Your task to perform on an android device: empty trash in google photos Image 0: 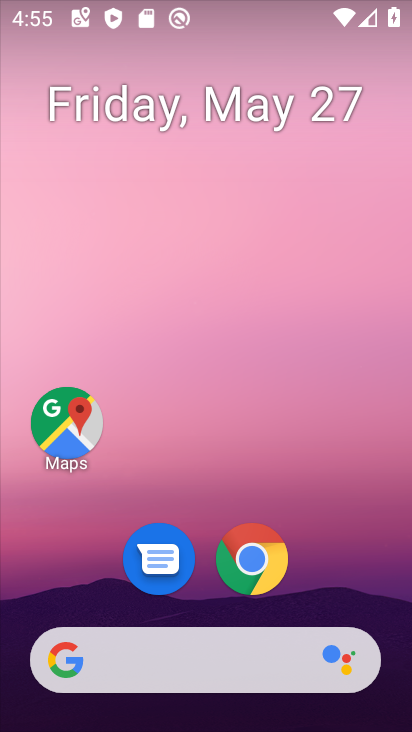
Step 0: drag from (312, 480) to (312, 55)
Your task to perform on an android device: empty trash in google photos Image 1: 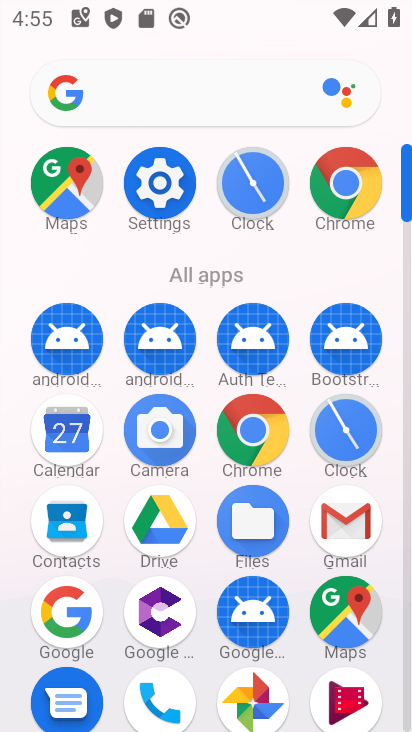
Step 1: drag from (219, 292) to (225, 3)
Your task to perform on an android device: empty trash in google photos Image 2: 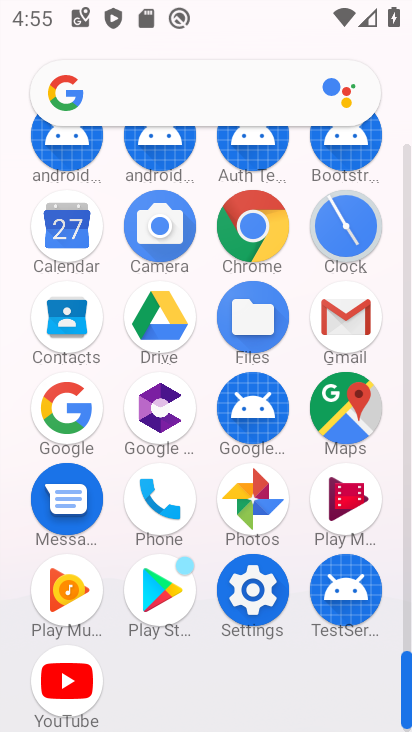
Step 2: click (239, 514)
Your task to perform on an android device: empty trash in google photos Image 3: 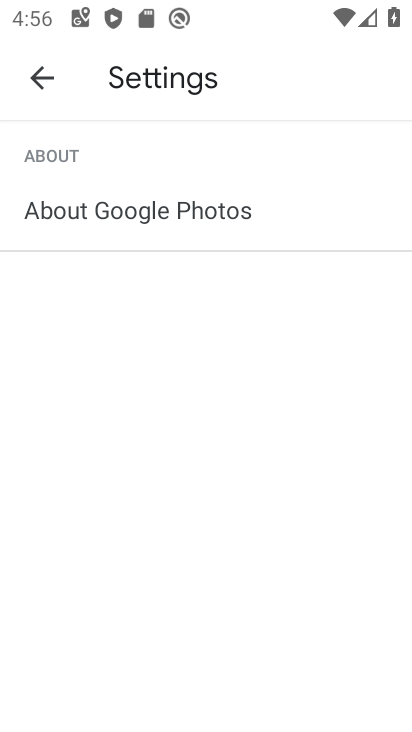
Step 3: click (31, 79)
Your task to perform on an android device: empty trash in google photos Image 4: 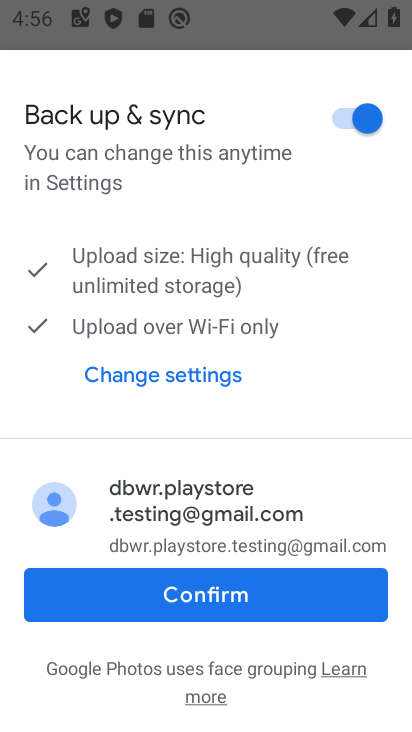
Step 4: click (218, 606)
Your task to perform on an android device: empty trash in google photos Image 5: 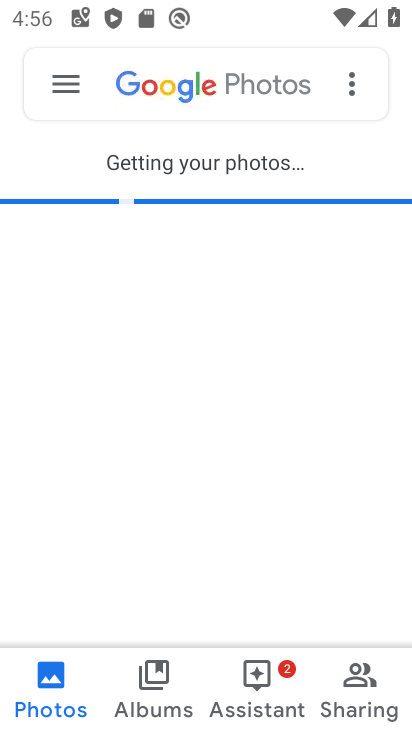
Step 5: click (61, 85)
Your task to perform on an android device: empty trash in google photos Image 6: 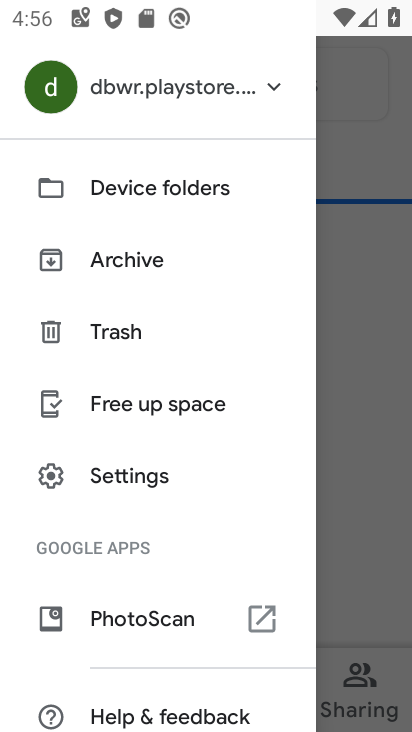
Step 6: drag from (193, 555) to (181, 412)
Your task to perform on an android device: empty trash in google photos Image 7: 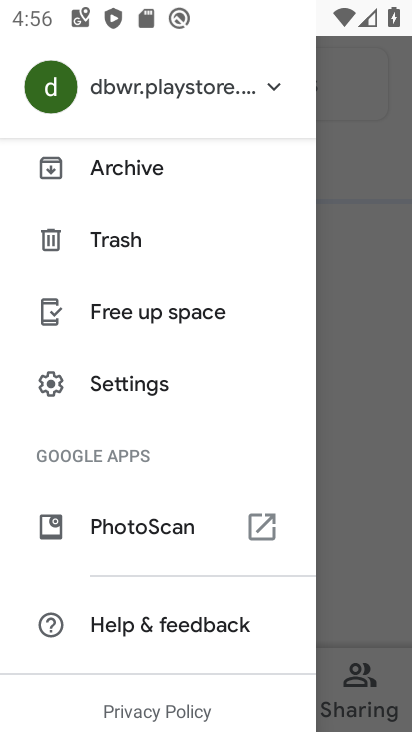
Step 7: click (108, 242)
Your task to perform on an android device: empty trash in google photos Image 8: 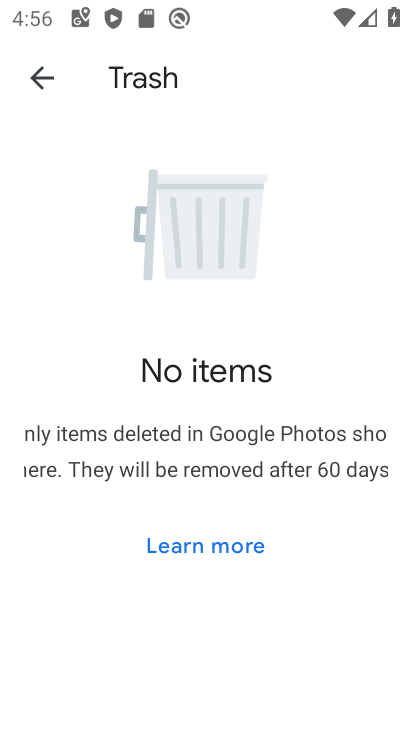
Step 8: task complete